Your task to perform on an android device: When is my next appointment? Image 0: 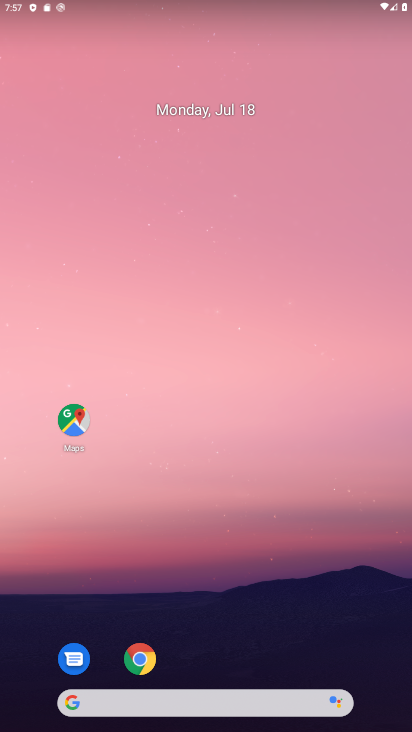
Step 0: drag from (249, 631) to (289, 2)
Your task to perform on an android device: When is my next appointment? Image 1: 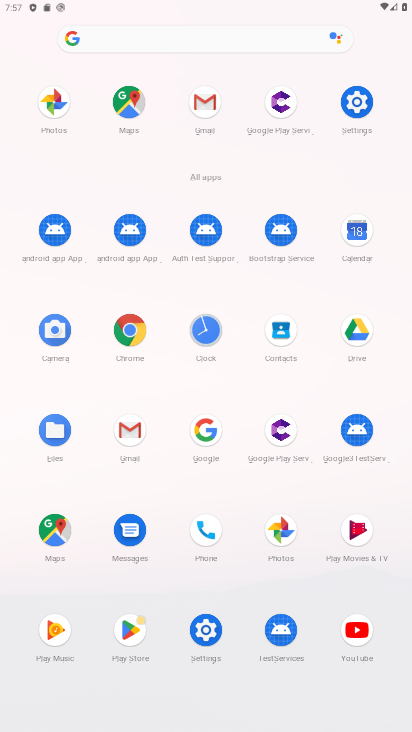
Step 1: click (357, 229)
Your task to perform on an android device: When is my next appointment? Image 2: 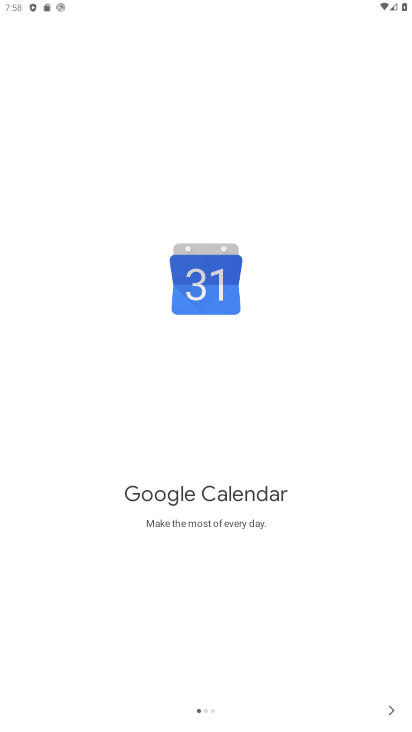
Step 2: click (399, 716)
Your task to perform on an android device: When is my next appointment? Image 3: 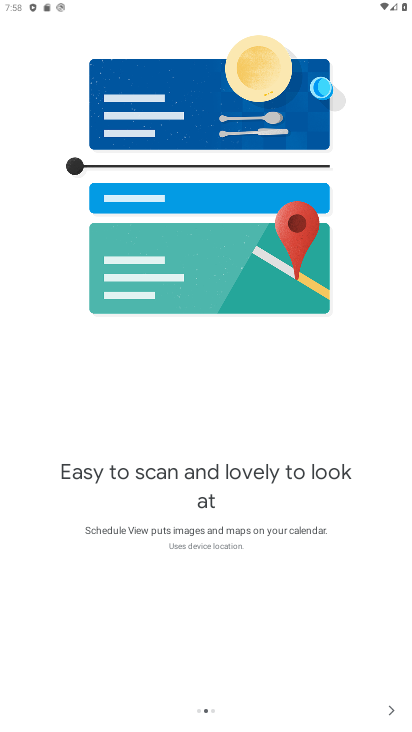
Step 3: click (399, 716)
Your task to perform on an android device: When is my next appointment? Image 4: 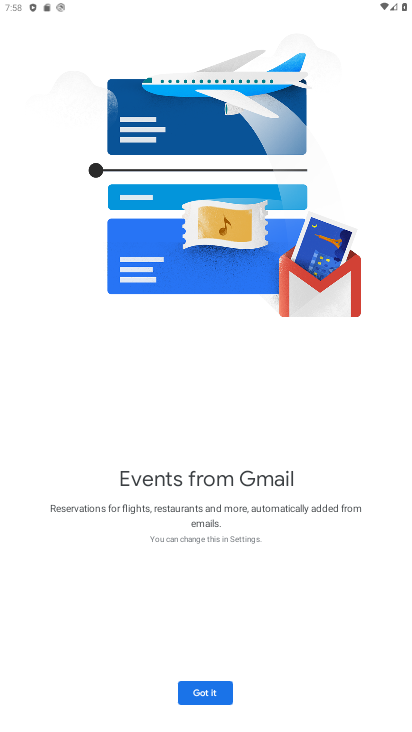
Step 4: click (200, 694)
Your task to perform on an android device: When is my next appointment? Image 5: 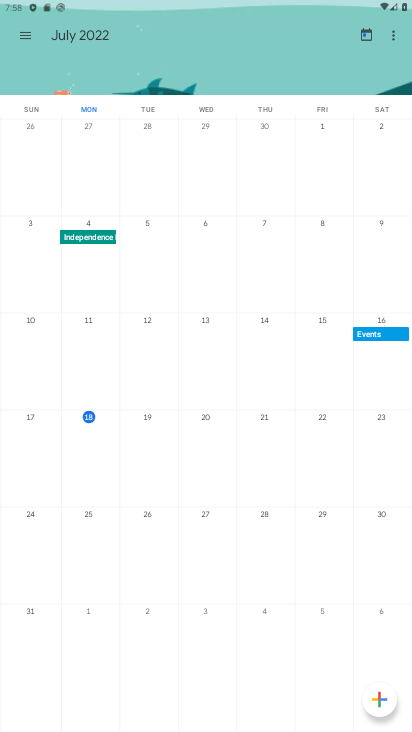
Step 5: click (94, 424)
Your task to perform on an android device: When is my next appointment? Image 6: 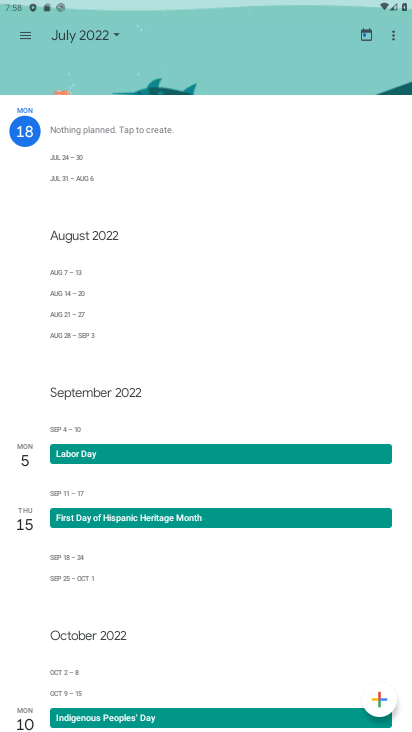
Step 6: task complete